Your task to perform on an android device: Go to calendar. Show me events next week Image 0: 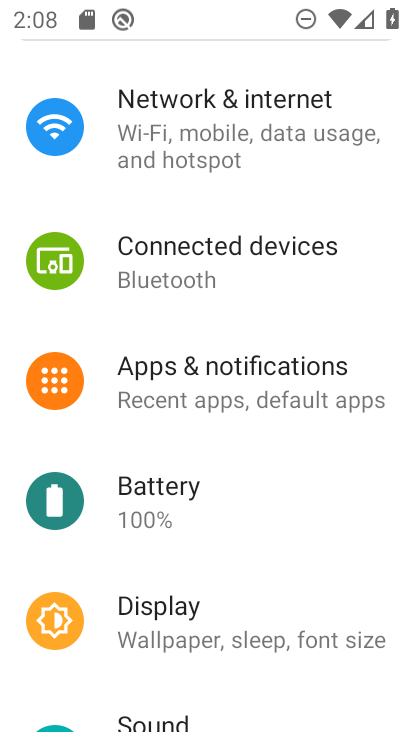
Step 0: press home button
Your task to perform on an android device: Go to calendar. Show me events next week Image 1: 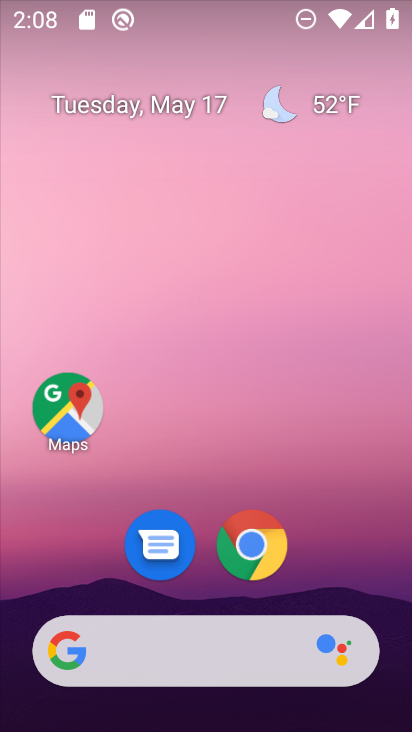
Step 1: drag from (366, 575) to (376, 188)
Your task to perform on an android device: Go to calendar. Show me events next week Image 2: 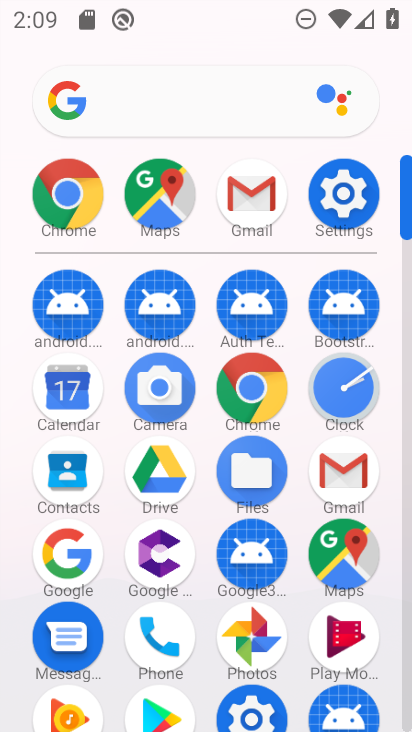
Step 2: click (53, 397)
Your task to perform on an android device: Go to calendar. Show me events next week Image 3: 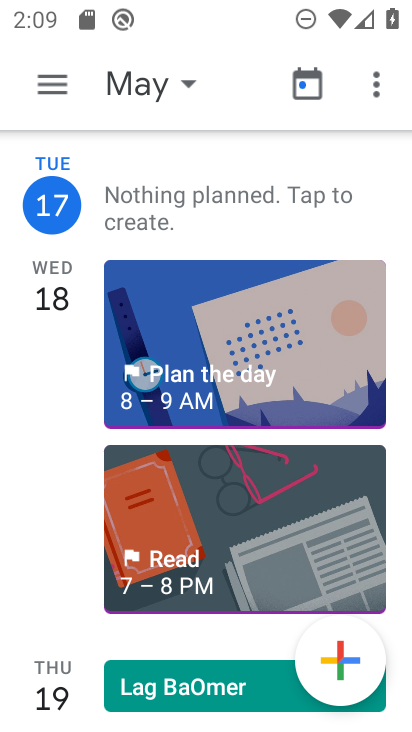
Step 3: drag from (265, 543) to (277, 409)
Your task to perform on an android device: Go to calendar. Show me events next week Image 4: 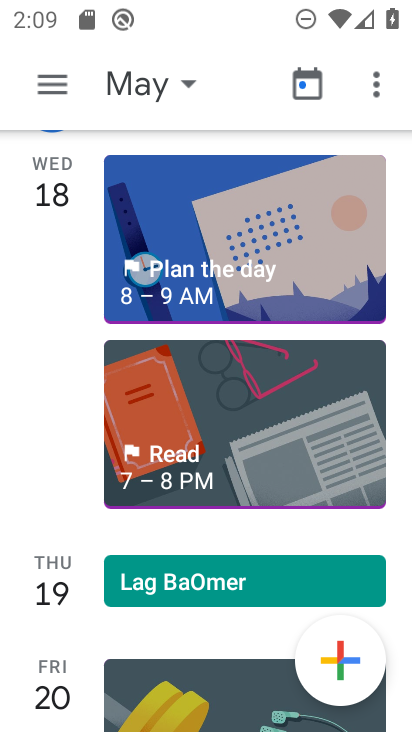
Step 4: drag from (266, 527) to (284, 485)
Your task to perform on an android device: Go to calendar. Show me events next week Image 5: 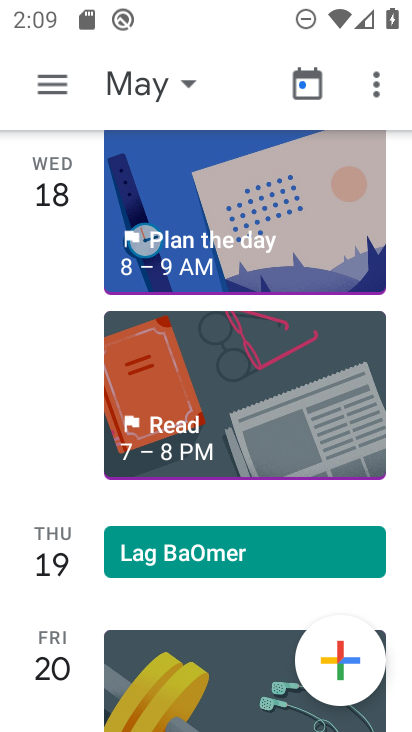
Step 5: click (194, 82)
Your task to perform on an android device: Go to calendar. Show me events next week Image 6: 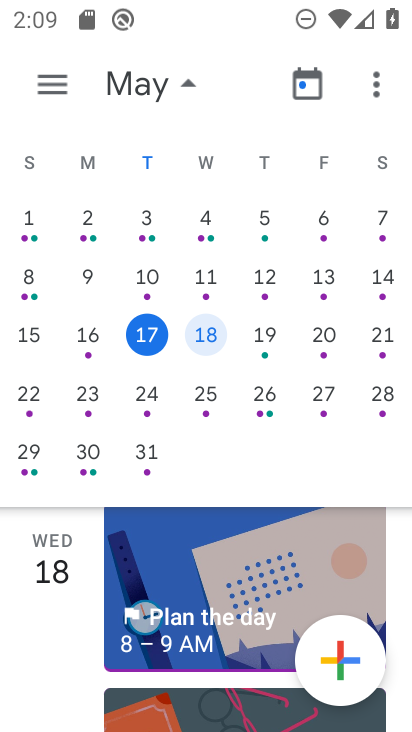
Step 6: click (87, 389)
Your task to perform on an android device: Go to calendar. Show me events next week Image 7: 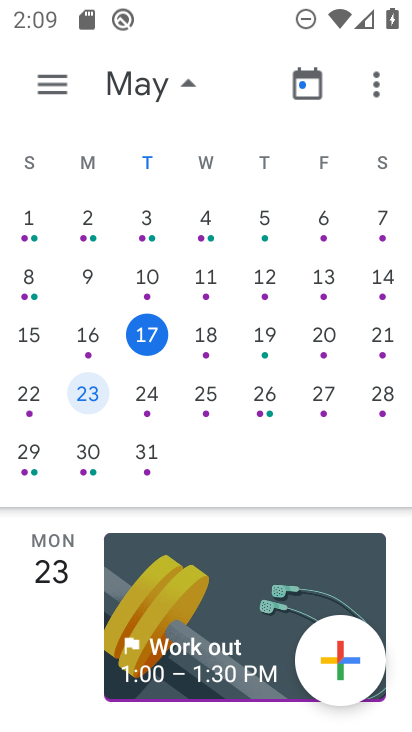
Step 7: task complete